Your task to perform on an android device: change the clock display to show seconds Image 0: 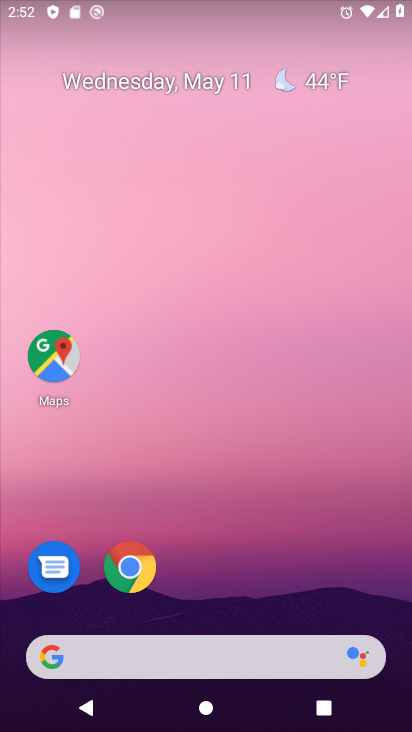
Step 0: drag from (241, 419) to (206, 0)
Your task to perform on an android device: change the clock display to show seconds Image 1: 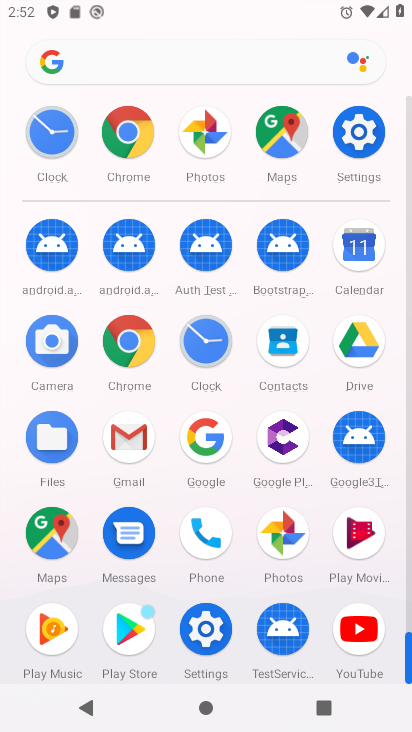
Step 1: drag from (17, 559) to (11, 291)
Your task to perform on an android device: change the clock display to show seconds Image 2: 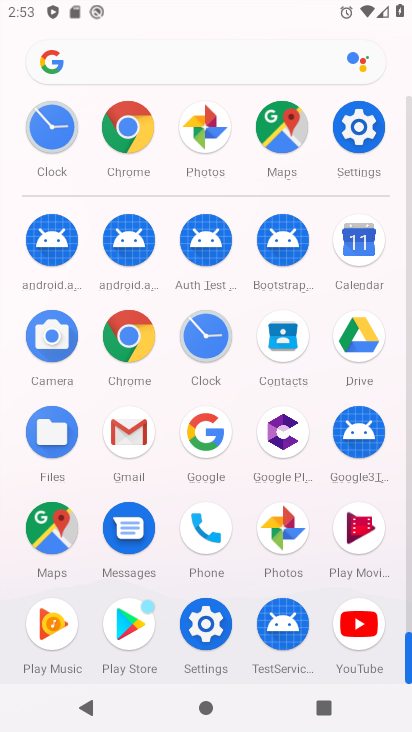
Step 2: click (201, 622)
Your task to perform on an android device: change the clock display to show seconds Image 3: 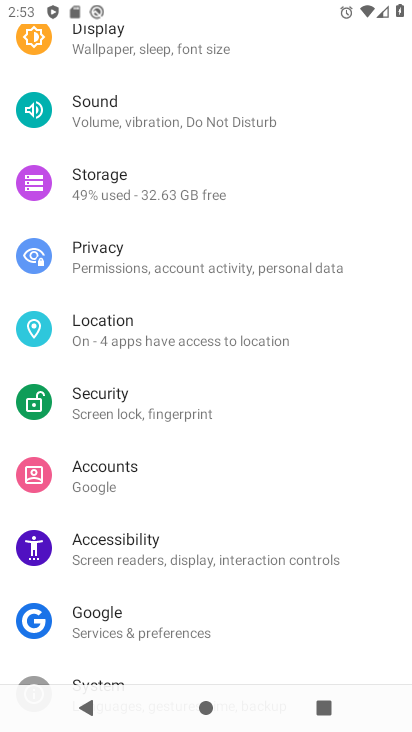
Step 3: drag from (242, 147) to (192, 557)
Your task to perform on an android device: change the clock display to show seconds Image 4: 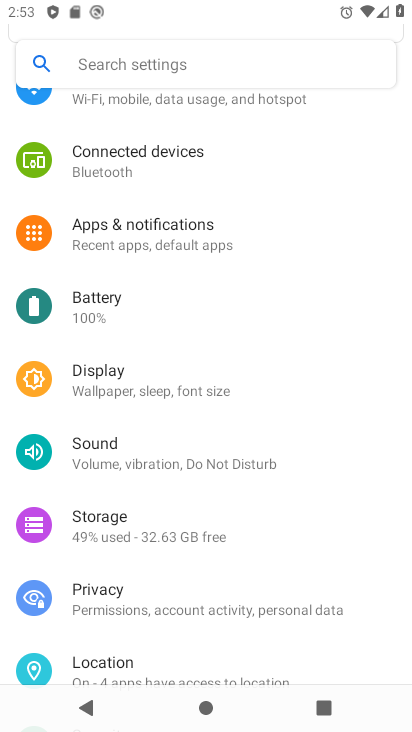
Step 4: drag from (218, 213) to (182, 601)
Your task to perform on an android device: change the clock display to show seconds Image 5: 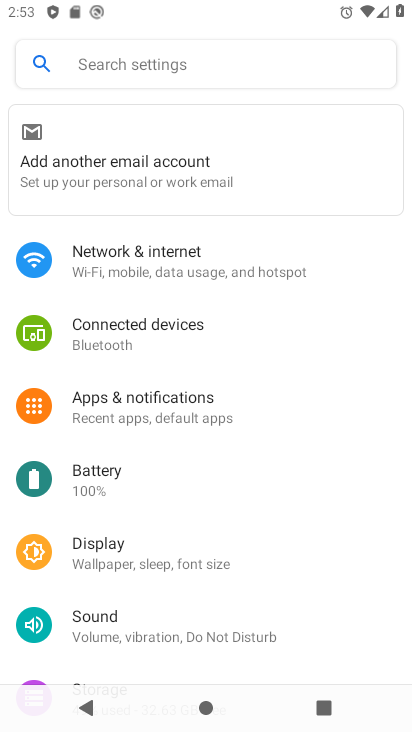
Step 5: press back button
Your task to perform on an android device: change the clock display to show seconds Image 6: 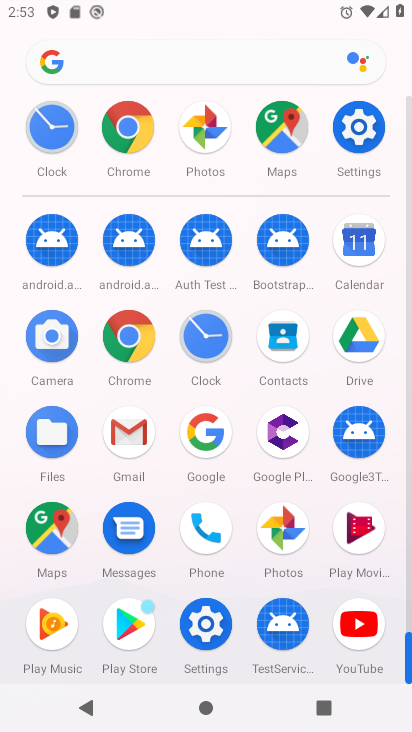
Step 6: press back button
Your task to perform on an android device: change the clock display to show seconds Image 7: 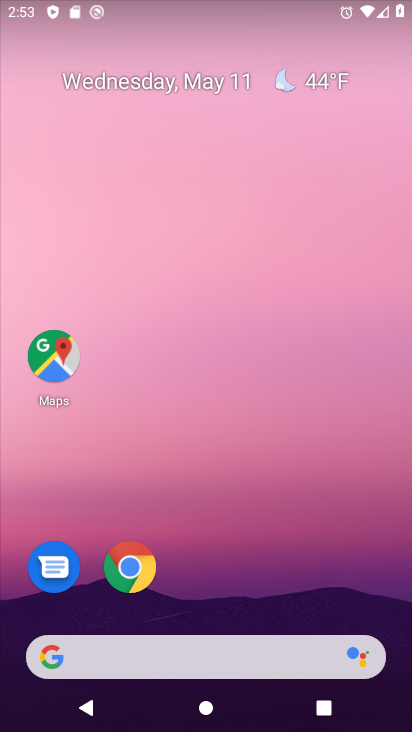
Step 7: drag from (281, 530) to (234, 36)
Your task to perform on an android device: change the clock display to show seconds Image 8: 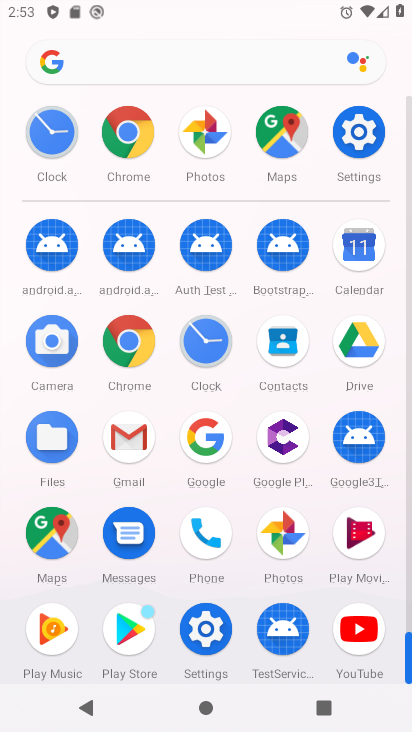
Step 8: click (203, 335)
Your task to perform on an android device: change the clock display to show seconds Image 9: 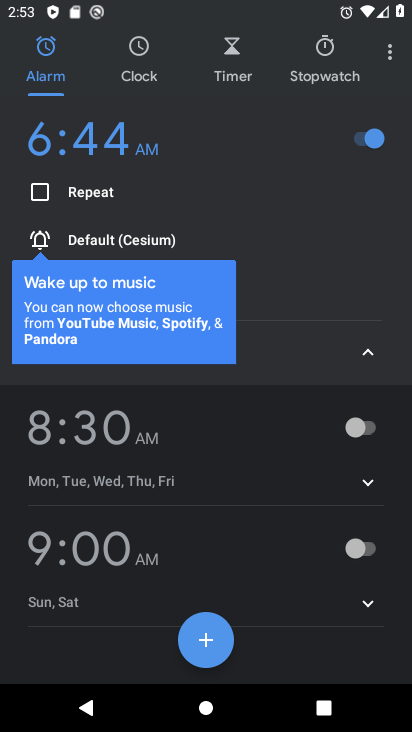
Step 9: drag from (385, 39) to (314, 103)
Your task to perform on an android device: change the clock display to show seconds Image 10: 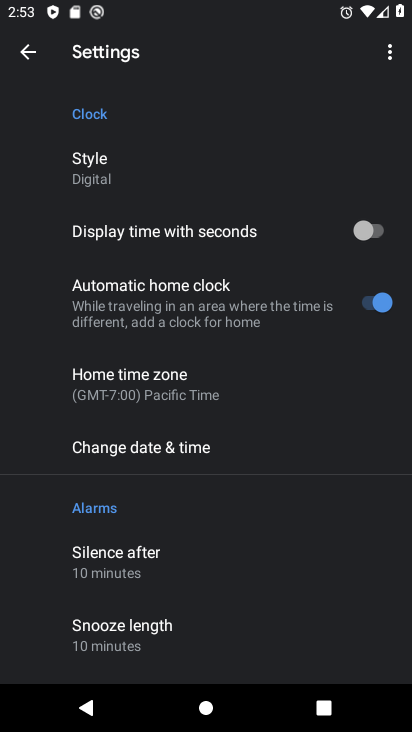
Step 10: click (374, 223)
Your task to perform on an android device: change the clock display to show seconds Image 11: 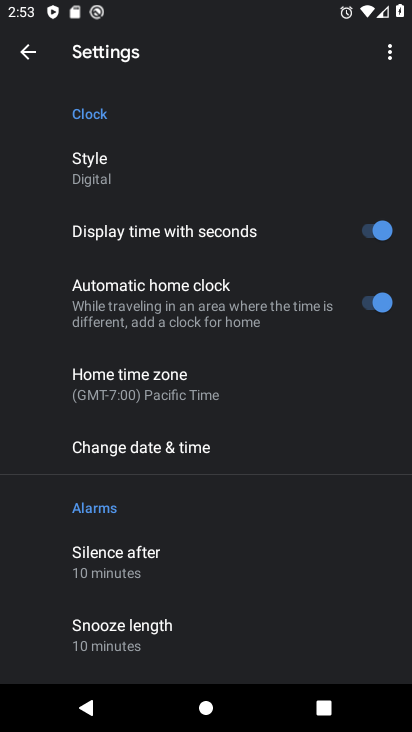
Step 11: task complete